Your task to perform on an android device: toggle translation in the chrome app Image 0: 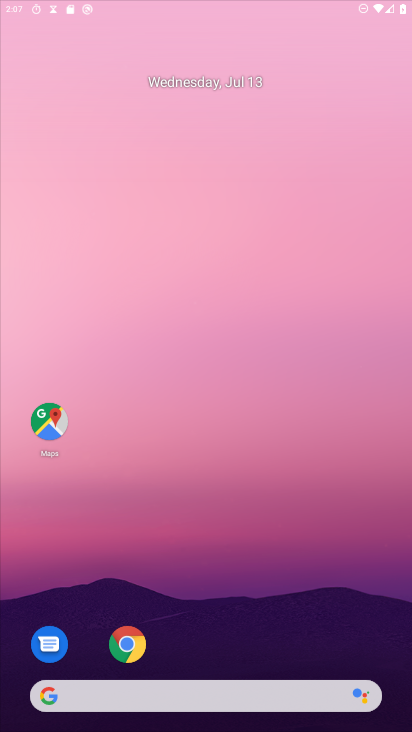
Step 0: press home button
Your task to perform on an android device: toggle translation in the chrome app Image 1: 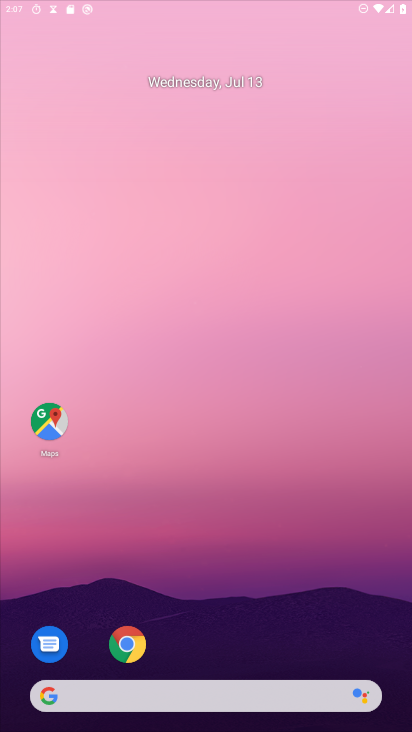
Step 1: click (287, 114)
Your task to perform on an android device: toggle translation in the chrome app Image 2: 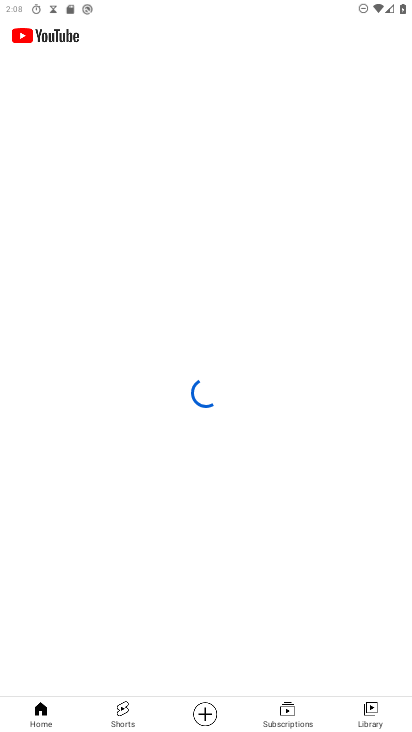
Step 2: drag from (224, 655) to (227, 196)
Your task to perform on an android device: toggle translation in the chrome app Image 3: 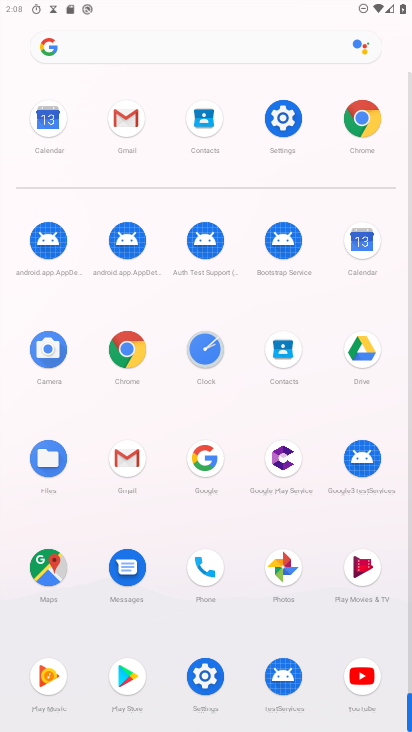
Step 3: click (133, 354)
Your task to perform on an android device: toggle translation in the chrome app Image 4: 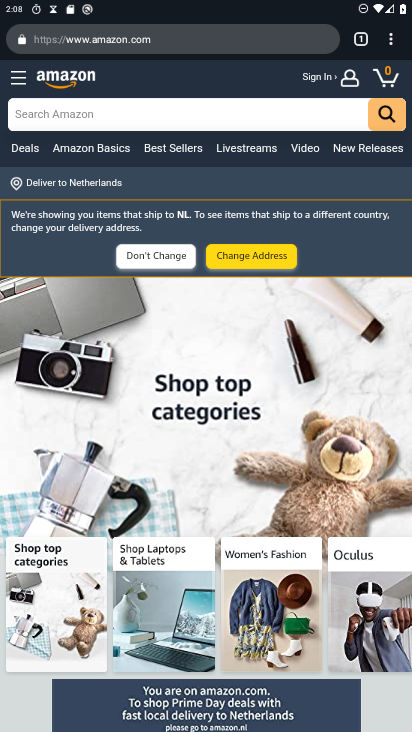
Step 4: drag from (390, 38) to (245, 479)
Your task to perform on an android device: toggle translation in the chrome app Image 5: 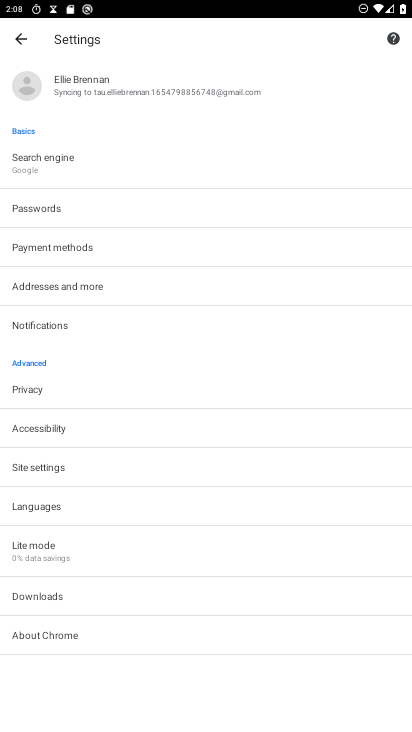
Step 5: click (33, 509)
Your task to perform on an android device: toggle translation in the chrome app Image 6: 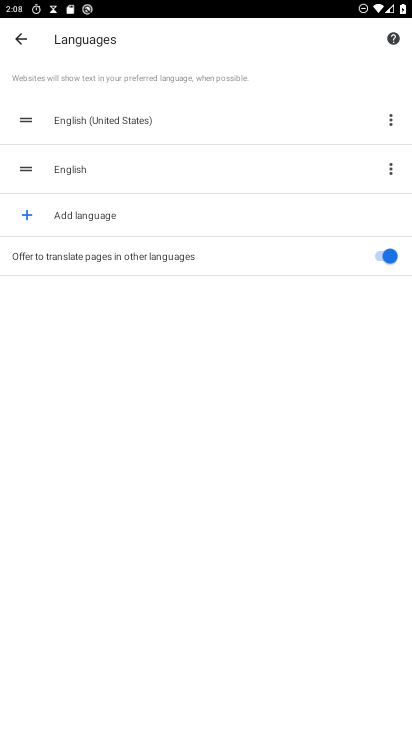
Step 6: click (377, 252)
Your task to perform on an android device: toggle translation in the chrome app Image 7: 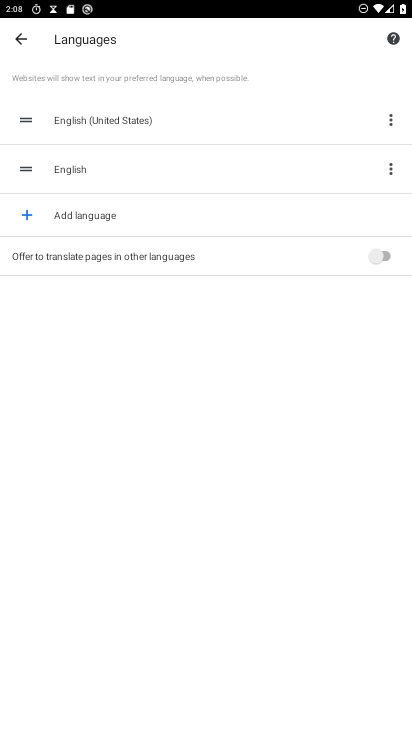
Step 7: task complete